Your task to perform on an android device: turn on wifi Image 0: 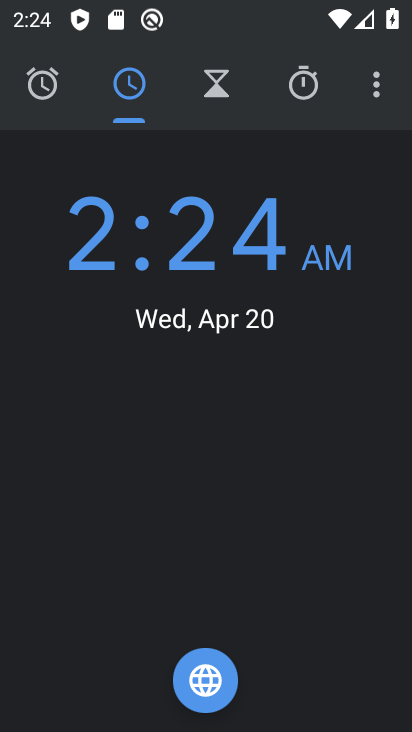
Step 0: press back button
Your task to perform on an android device: turn on wifi Image 1: 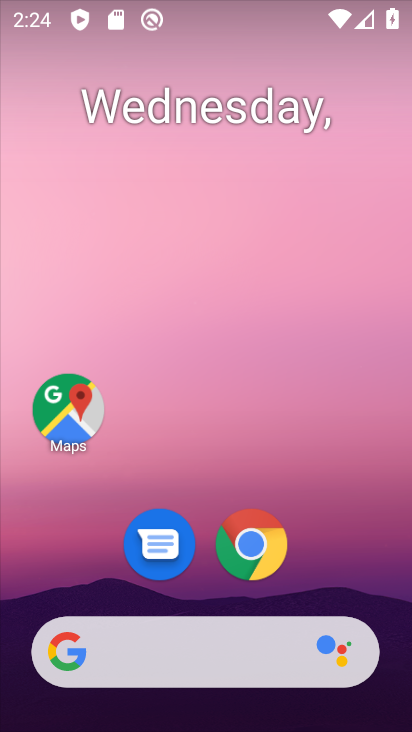
Step 1: drag from (205, 616) to (328, 21)
Your task to perform on an android device: turn on wifi Image 2: 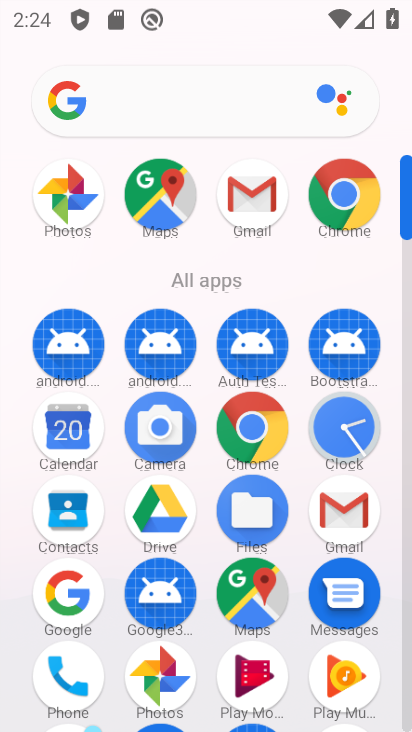
Step 2: drag from (207, 555) to (309, 213)
Your task to perform on an android device: turn on wifi Image 3: 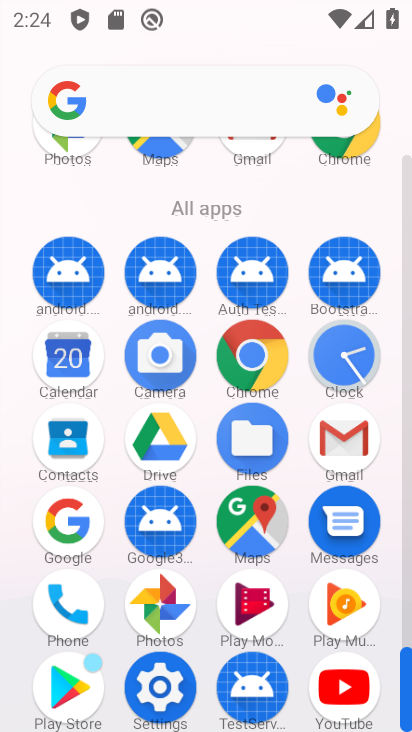
Step 3: click (159, 682)
Your task to perform on an android device: turn on wifi Image 4: 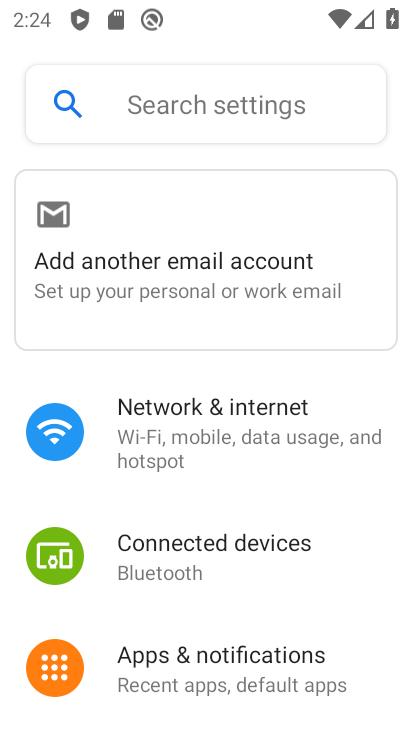
Step 4: click (192, 433)
Your task to perform on an android device: turn on wifi Image 5: 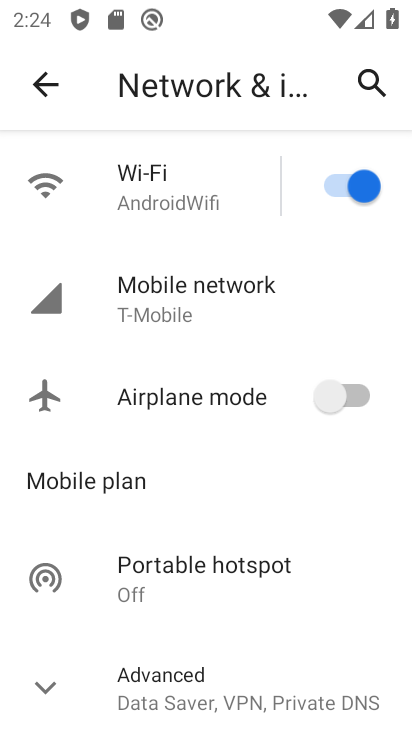
Step 5: task complete